Your task to perform on an android device: check battery use Image 0: 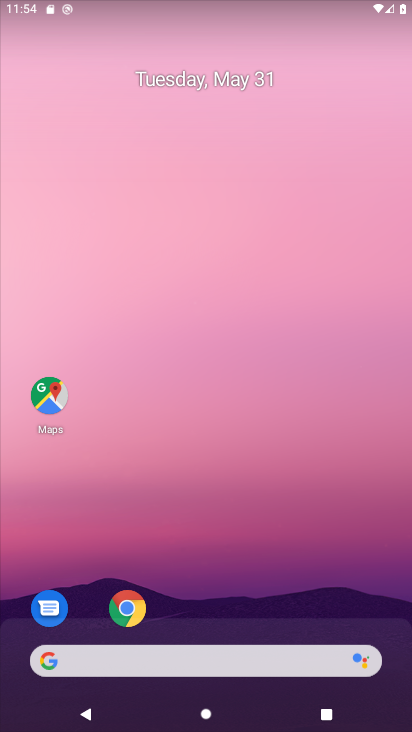
Step 0: drag from (190, 606) to (231, 7)
Your task to perform on an android device: check battery use Image 1: 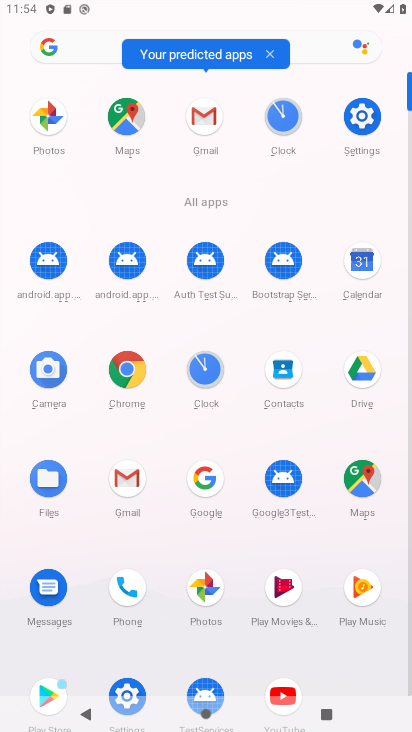
Step 1: click (366, 127)
Your task to perform on an android device: check battery use Image 2: 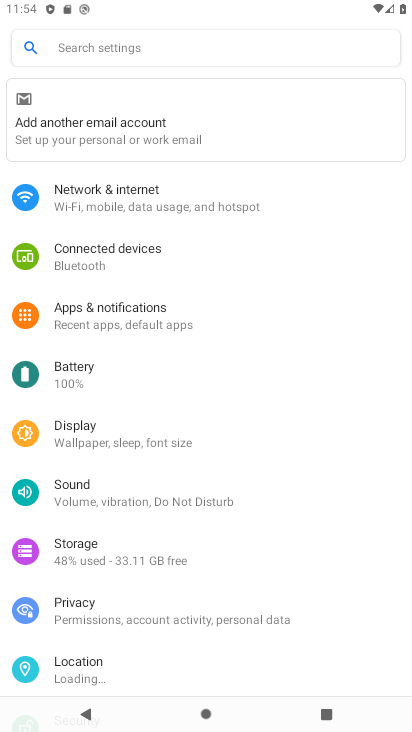
Step 2: click (101, 379)
Your task to perform on an android device: check battery use Image 3: 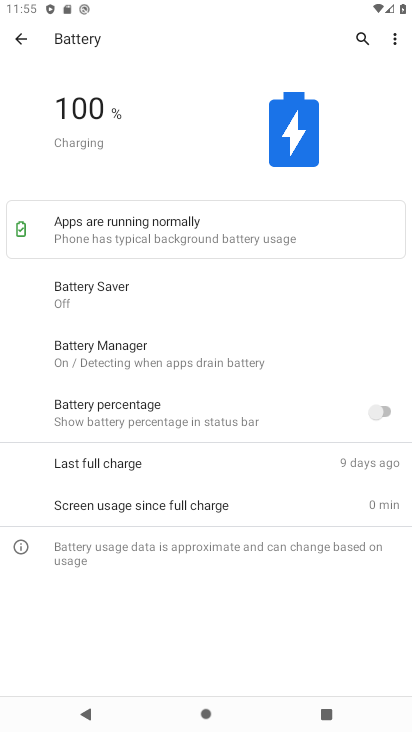
Step 3: click (396, 40)
Your task to perform on an android device: check battery use Image 4: 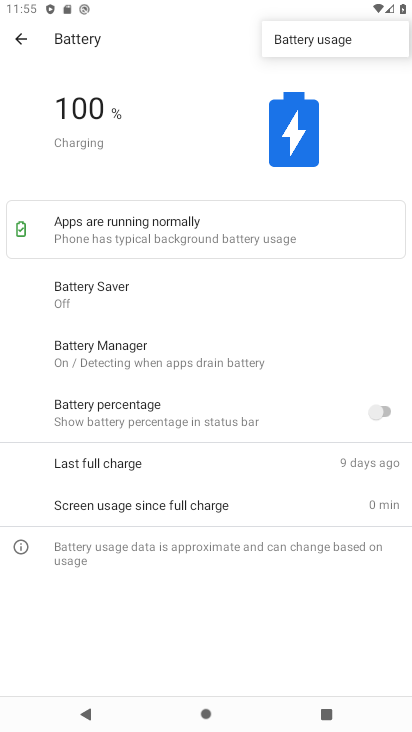
Step 4: click (352, 44)
Your task to perform on an android device: check battery use Image 5: 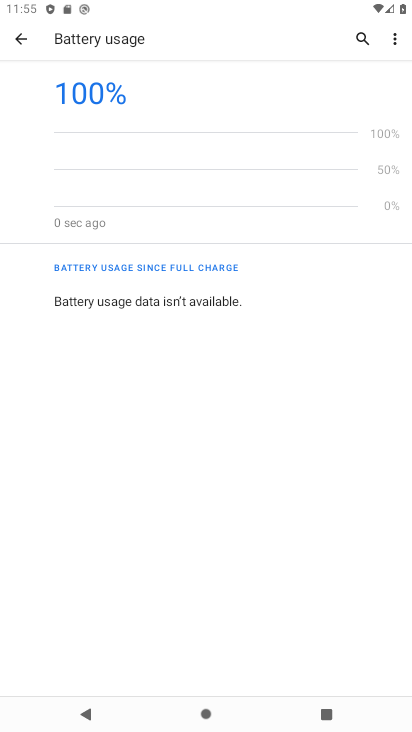
Step 5: task complete